Your task to perform on an android device: Set the phone to "Do not disturb". Image 0: 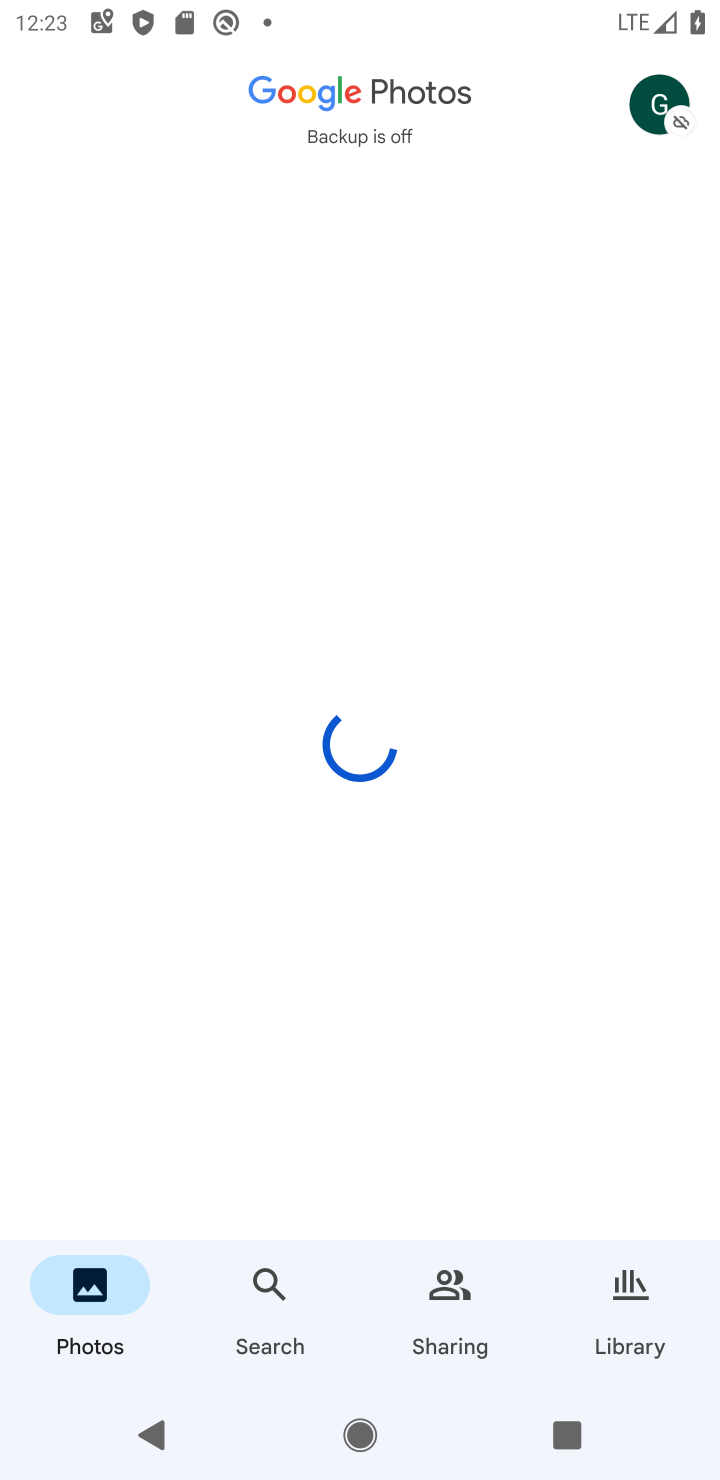
Step 0: press home button
Your task to perform on an android device: Set the phone to "Do not disturb". Image 1: 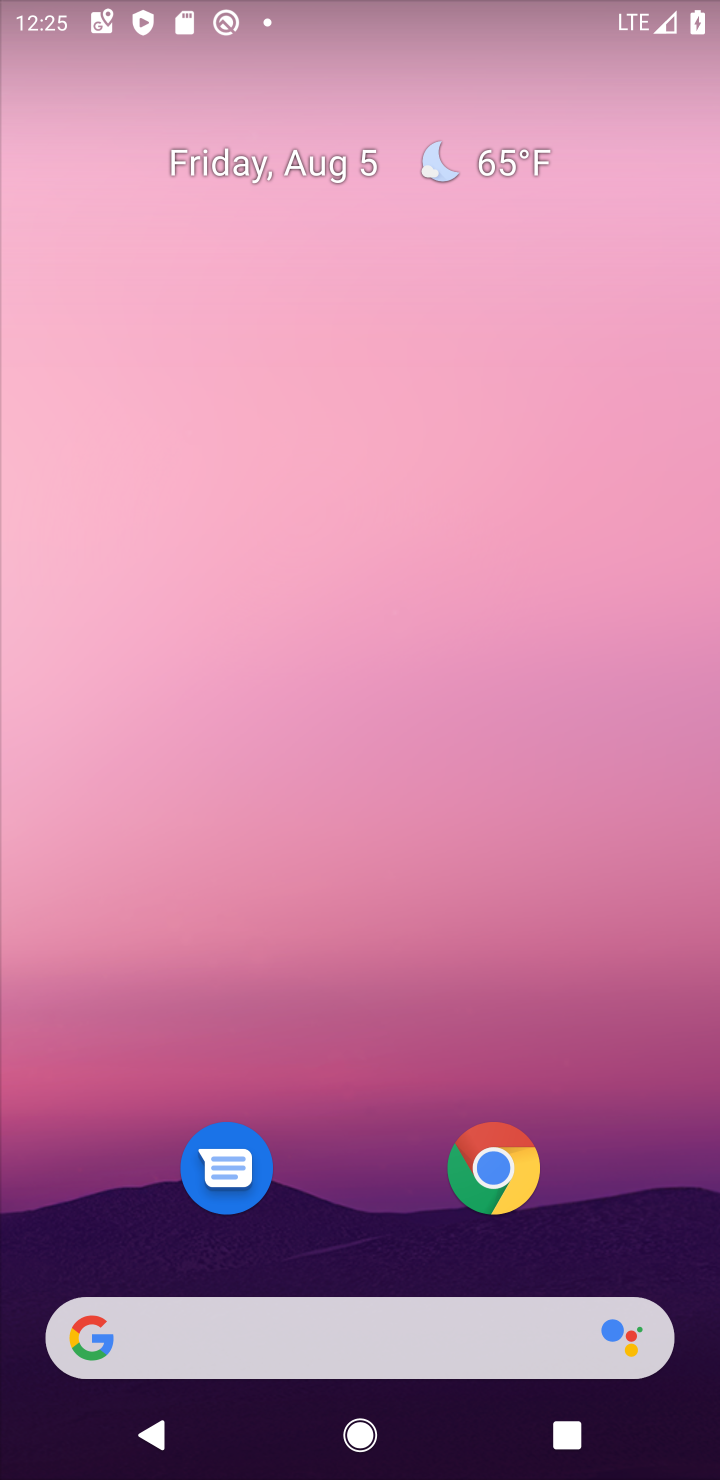
Step 1: drag from (329, 9) to (230, 1199)
Your task to perform on an android device: Set the phone to "Do not disturb". Image 2: 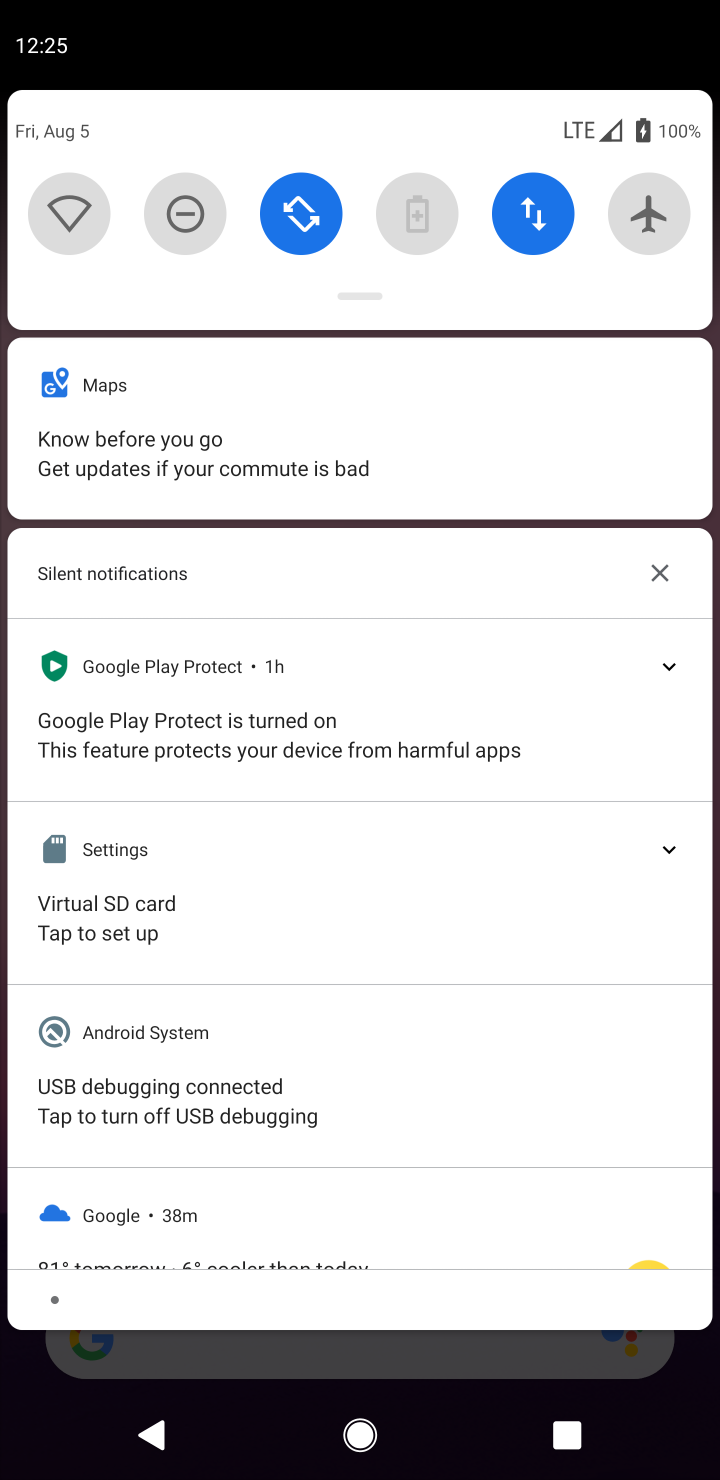
Step 2: click (174, 204)
Your task to perform on an android device: Set the phone to "Do not disturb". Image 3: 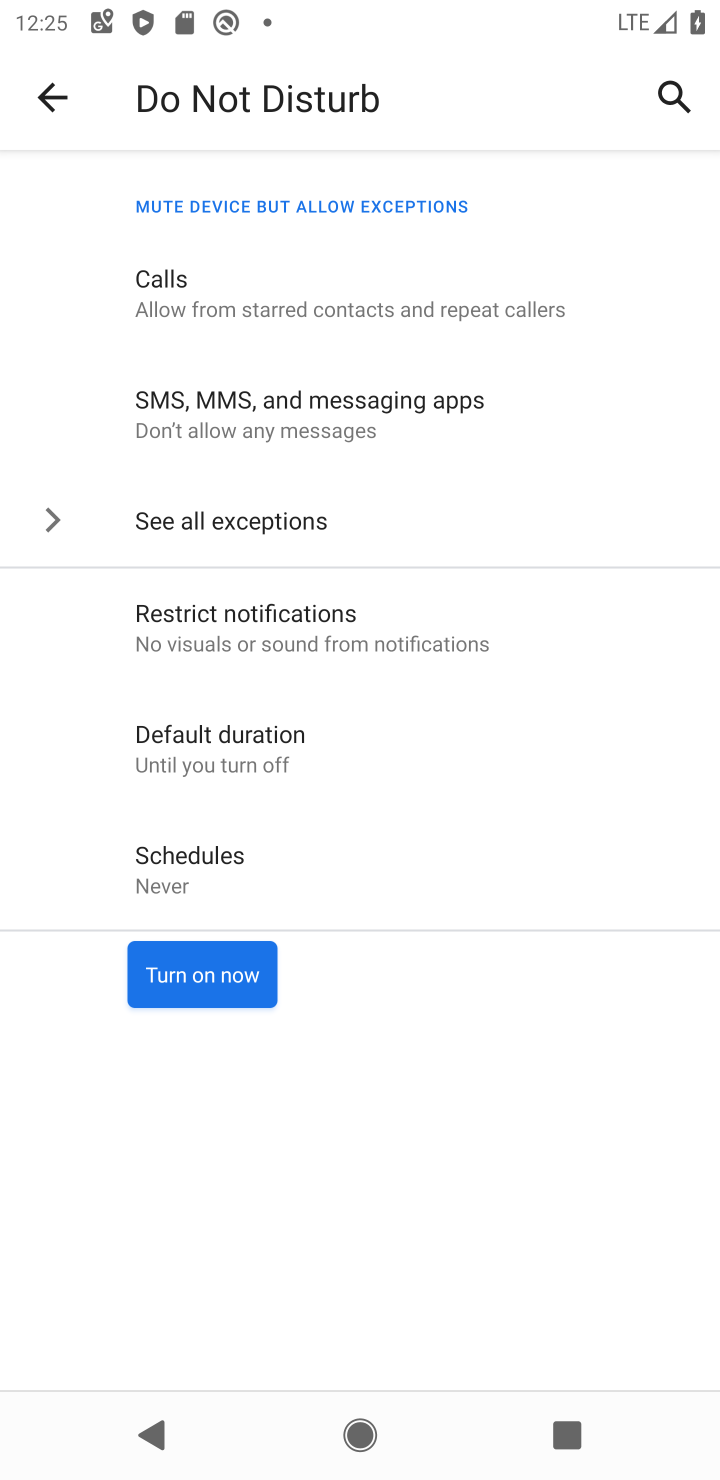
Step 3: click (202, 980)
Your task to perform on an android device: Set the phone to "Do not disturb". Image 4: 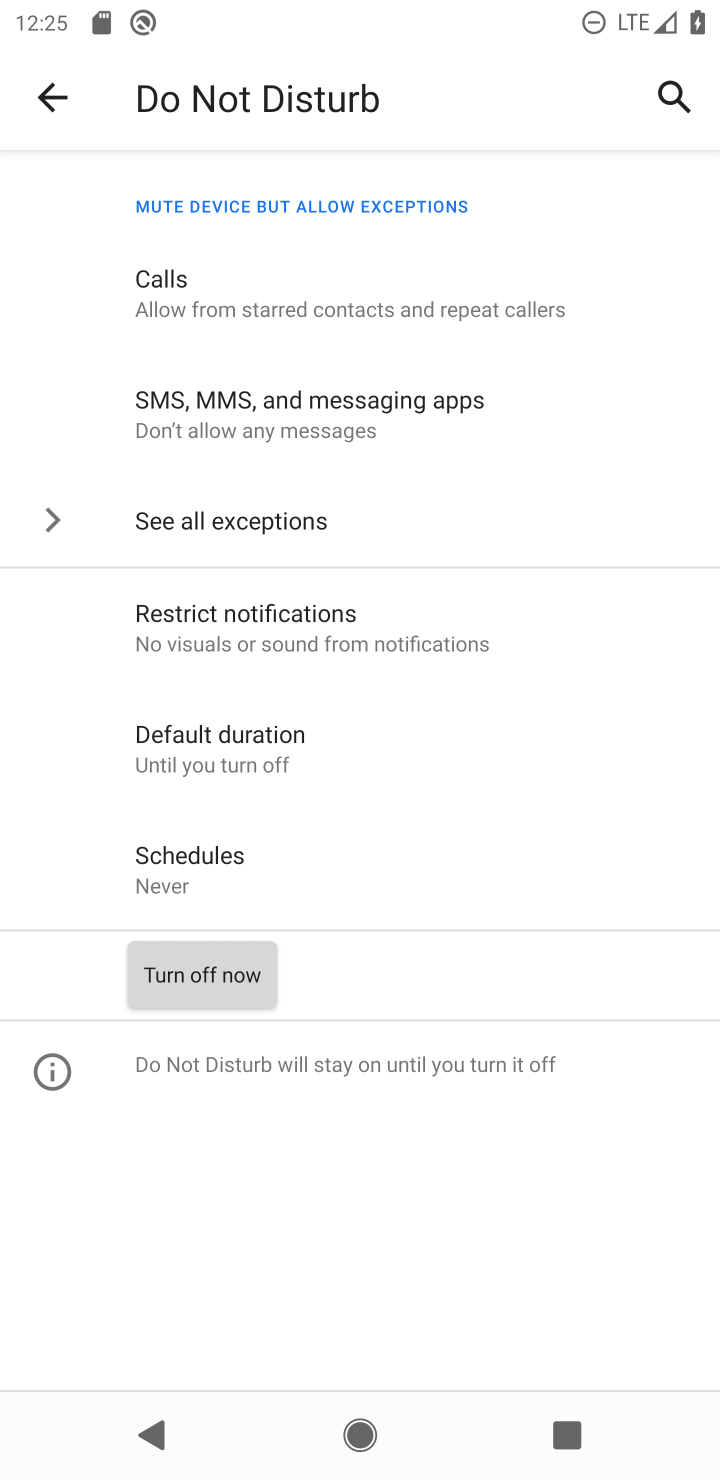
Step 4: task complete